Your task to perform on an android device: Open calendar and show me the second week of next month Image 0: 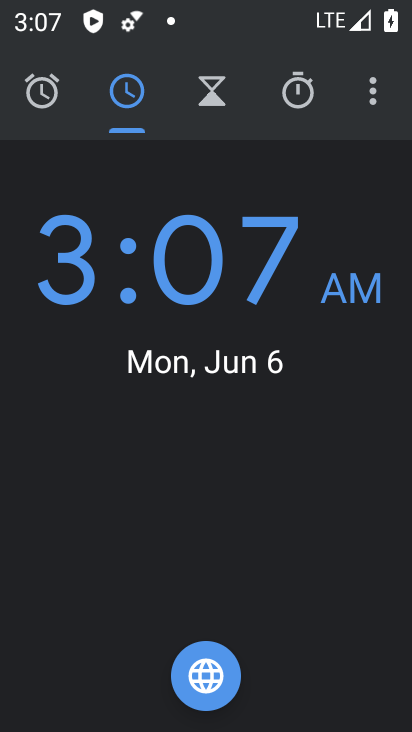
Step 0: press back button
Your task to perform on an android device: Open calendar and show me the second week of next month Image 1: 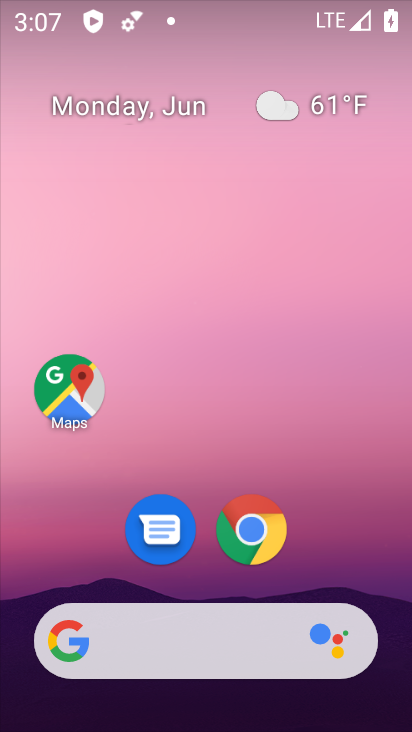
Step 1: click (230, 135)
Your task to perform on an android device: Open calendar and show me the second week of next month Image 2: 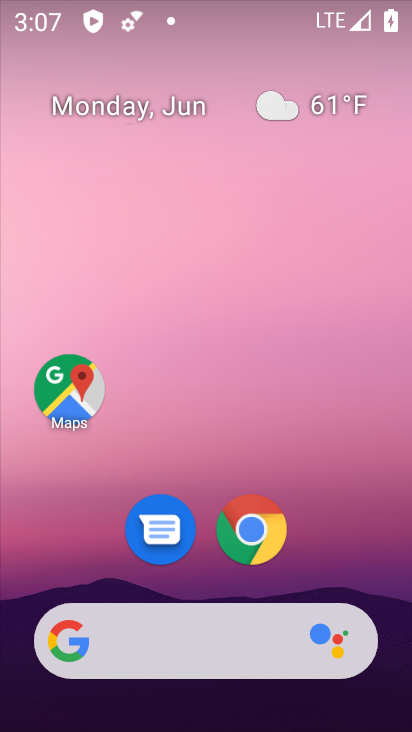
Step 2: drag from (259, 651) to (250, 123)
Your task to perform on an android device: Open calendar and show me the second week of next month Image 3: 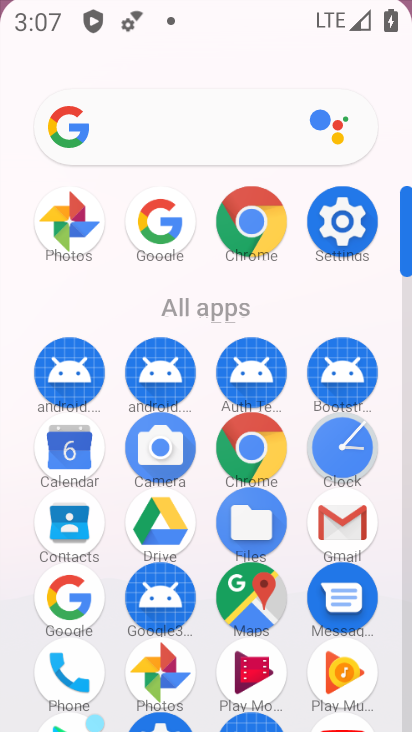
Step 3: drag from (209, 627) to (180, 114)
Your task to perform on an android device: Open calendar and show me the second week of next month Image 4: 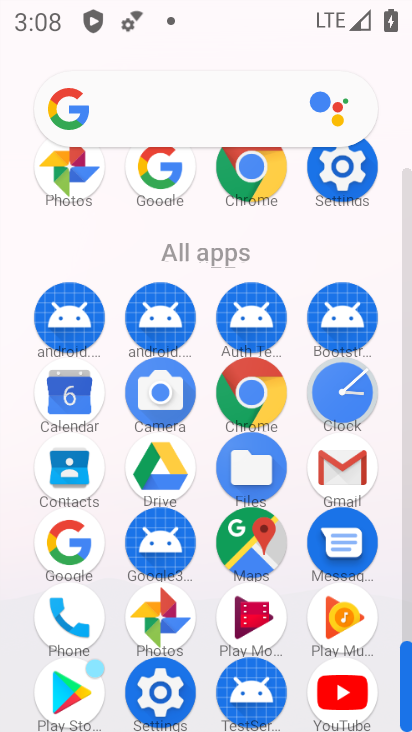
Step 4: click (58, 389)
Your task to perform on an android device: Open calendar and show me the second week of next month Image 5: 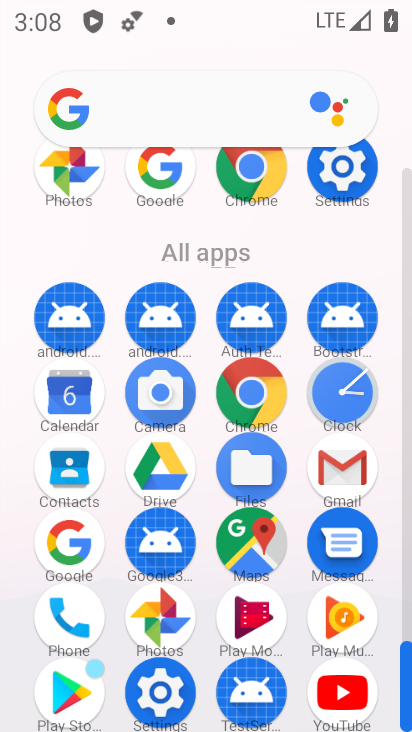
Step 5: click (56, 384)
Your task to perform on an android device: Open calendar and show me the second week of next month Image 6: 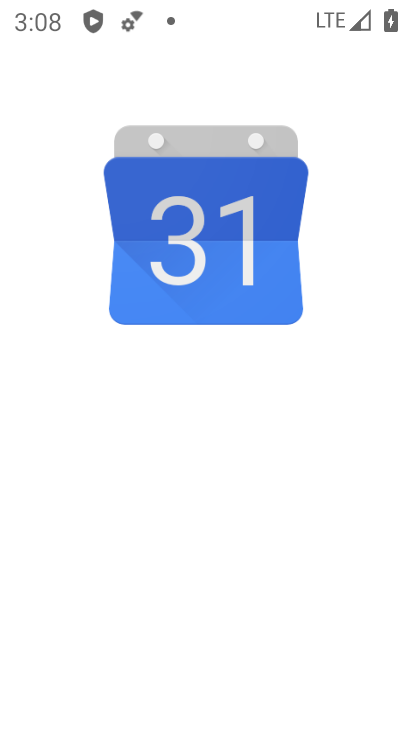
Step 6: click (52, 392)
Your task to perform on an android device: Open calendar and show me the second week of next month Image 7: 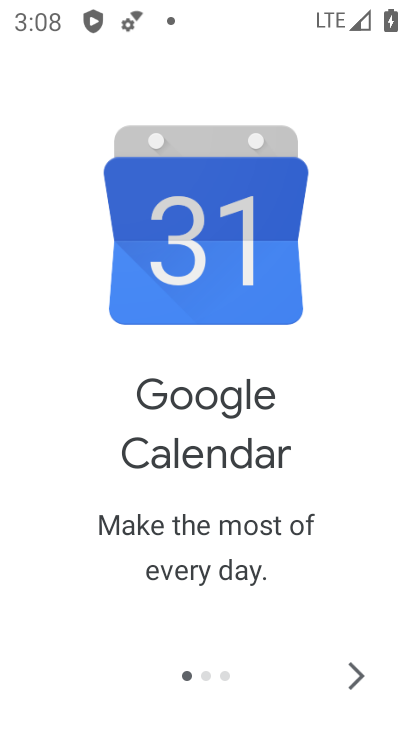
Step 7: click (364, 680)
Your task to perform on an android device: Open calendar and show me the second week of next month Image 8: 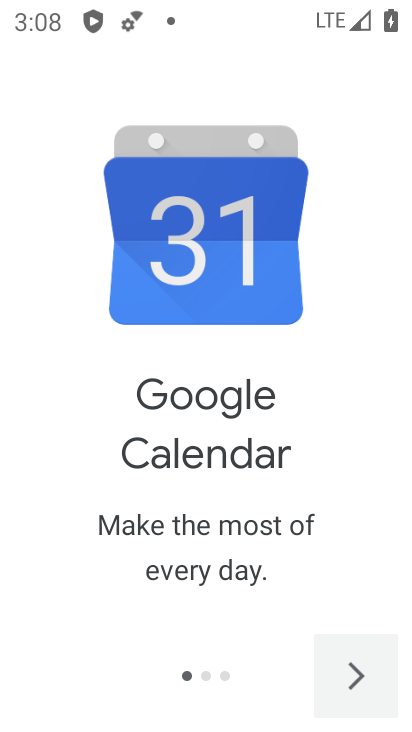
Step 8: click (364, 673)
Your task to perform on an android device: Open calendar and show me the second week of next month Image 9: 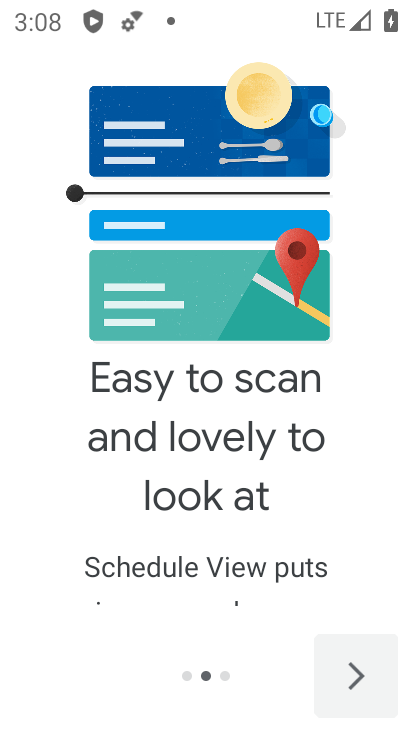
Step 9: click (364, 672)
Your task to perform on an android device: Open calendar and show me the second week of next month Image 10: 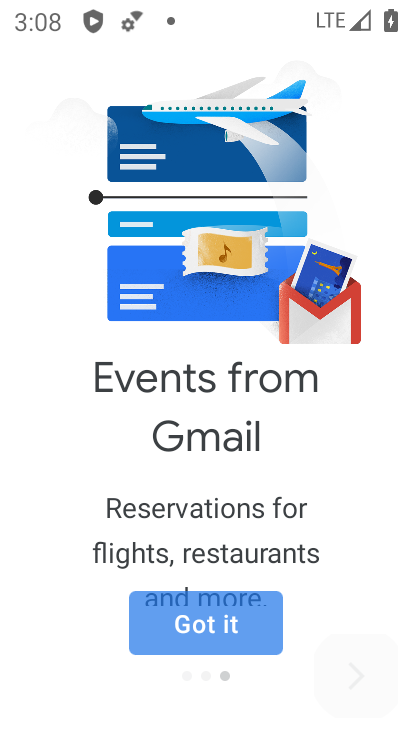
Step 10: click (366, 671)
Your task to perform on an android device: Open calendar and show me the second week of next month Image 11: 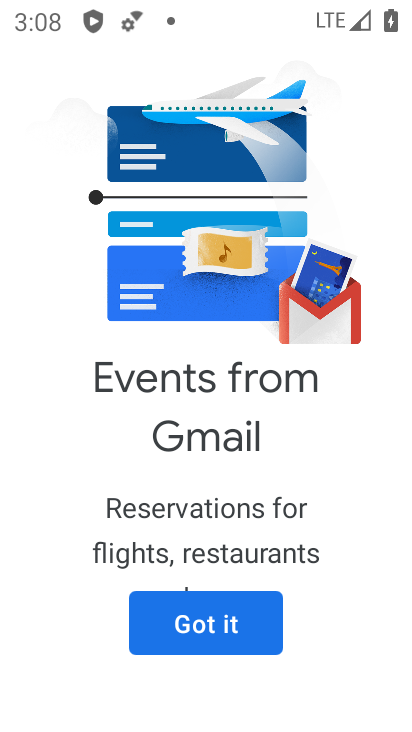
Step 11: click (219, 635)
Your task to perform on an android device: Open calendar and show me the second week of next month Image 12: 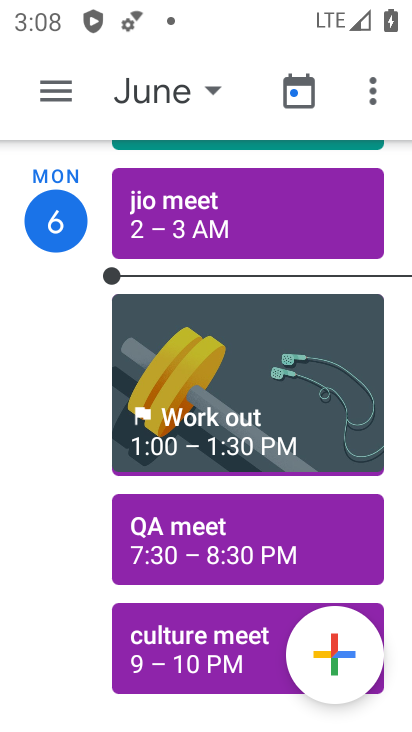
Step 12: click (215, 97)
Your task to perform on an android device: Open calendar and show me the second week of next month Image 13: 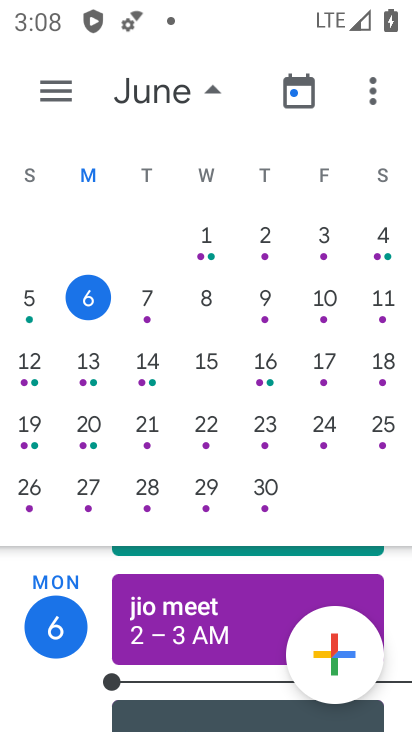
Step 13: drag from (270, 319) to (2, 377)
Your task to perform on an android device: Open calendar and show me the second week of next month Image 14: 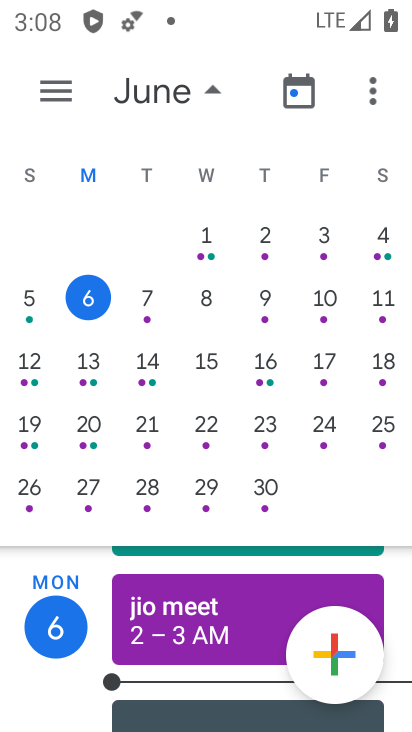
Step 14: drag from (296, 322) to (64, 421)
Your task to perform on an android device: Open calendar and show me the second week of next month Image 15: 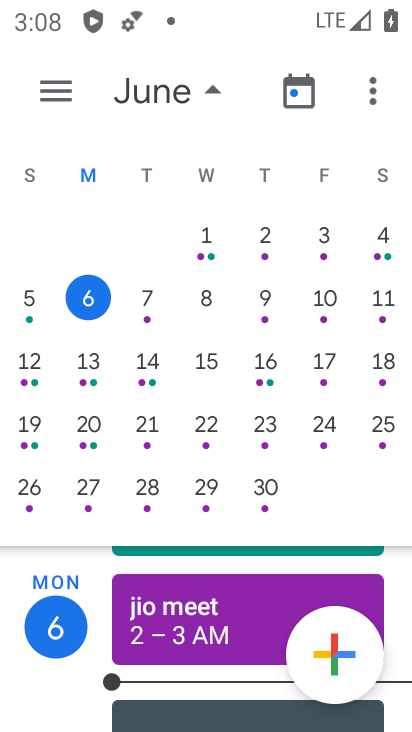
Step 15: drag from (338, 348) to (27, 397)
Your task to perform on an android device: Open calendar and show me the second week of next month Image 16: 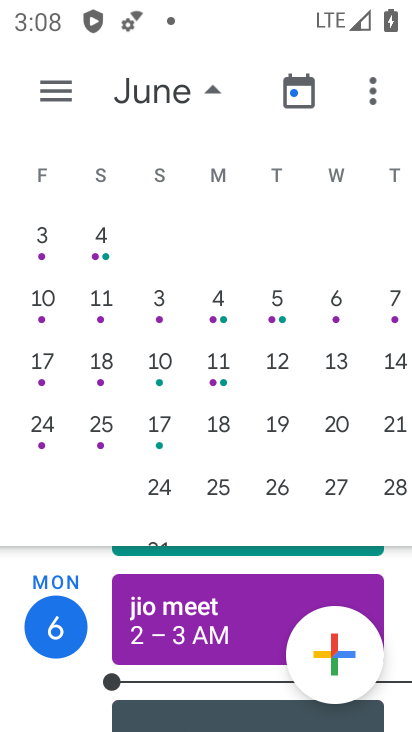
Step 16: drag from (219, 337) to (18, 356)
Your task to perform on an android device: Open calendar and show me the second week of next month Image 17: 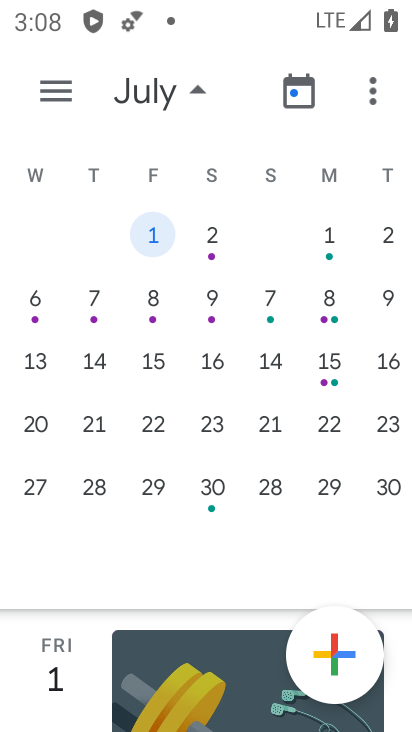
Step 17: drag from (324, 318) to (15, 264)
Your task to perform on an android device: Open calendar and show me the second week of next month Image 18: 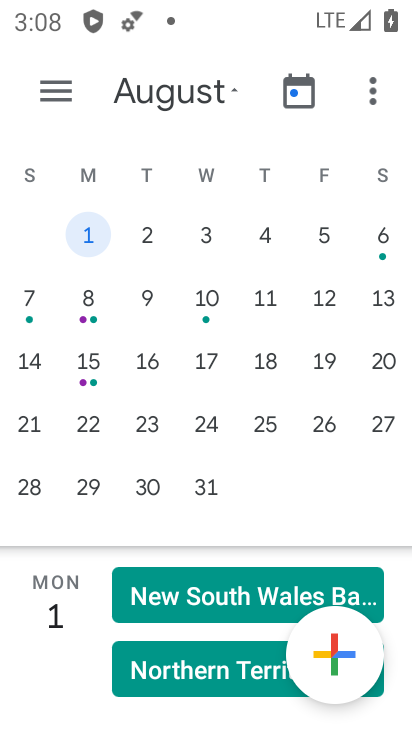
Step 18: drag from (107, 319) to (336, 375)
Your task to perform on an android device: Open calendar and show me the second week of next month Image 19: 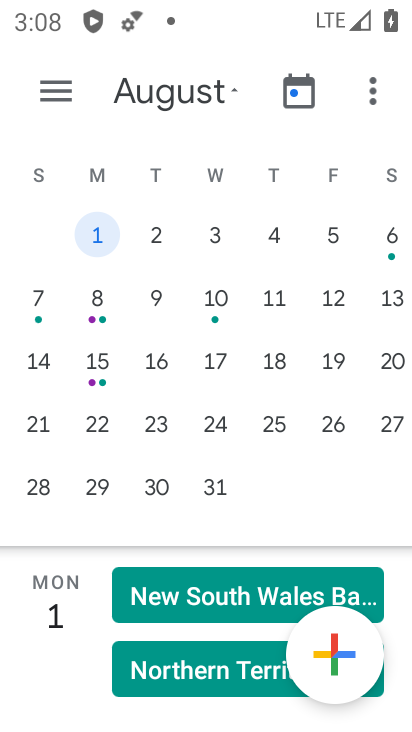
Step 19: drag from (121, 352) to (360, 326)
Your task to perform on an android device: Open calendar and show me the second week of next month Image 20: 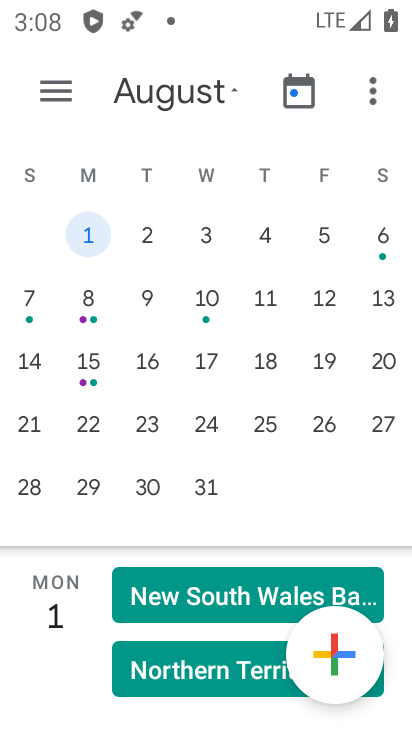
Step 20: drag from (137, 304) to (371, 345)
Your task to perform on an android device: Open calendar and show me the second week of next month Image 21: 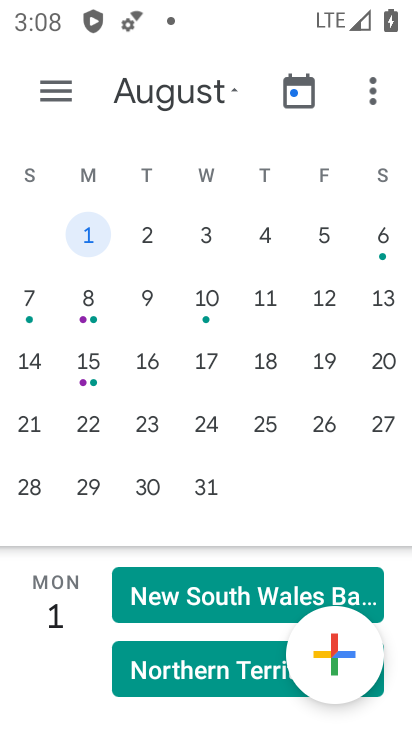
Step 21: drag from (84, 318) to (359, 375)
Your task to perform on an android device: Open calendar and show me the second week of next month Image 22: 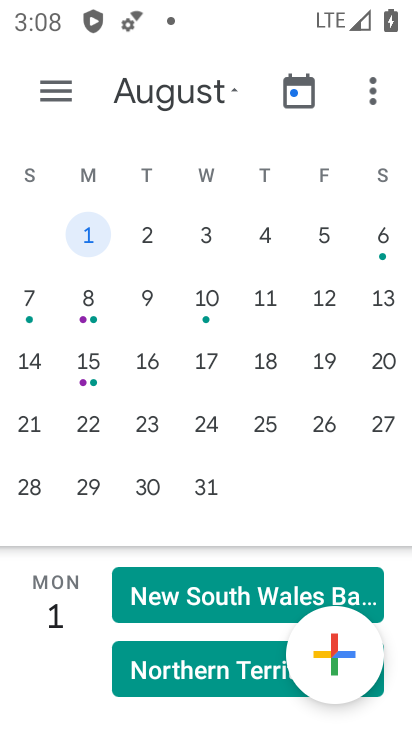
Step 22: drag from (36, 344) to (379, 341)
Your task to perform on an android device: Open calendar and show me the second week of next month Image 23: 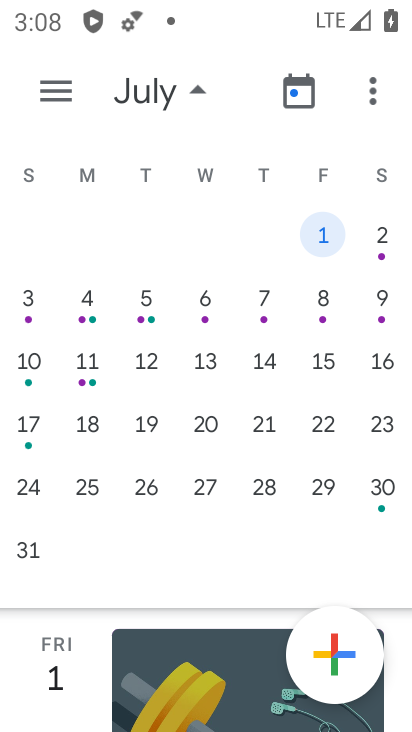
Step 23: drag from (129, 335) to (315, 362)
Your task to perform on an android device: Open calendar and show me the second week of next month Image 24: 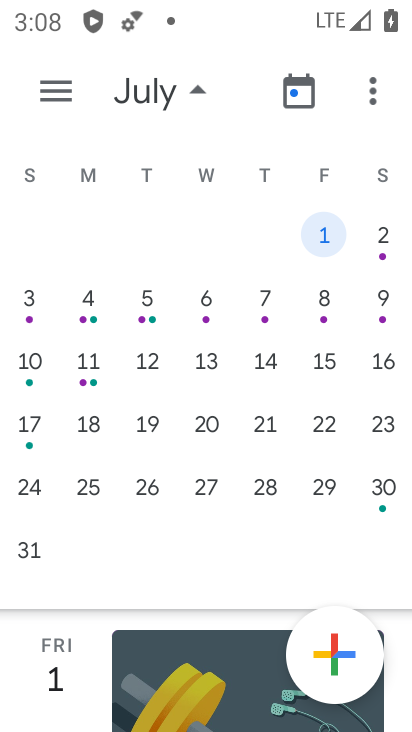
Step 24: click (317, 297)
Your task to perform on an android device: Open calendar and show me the second week of next month Image 25: 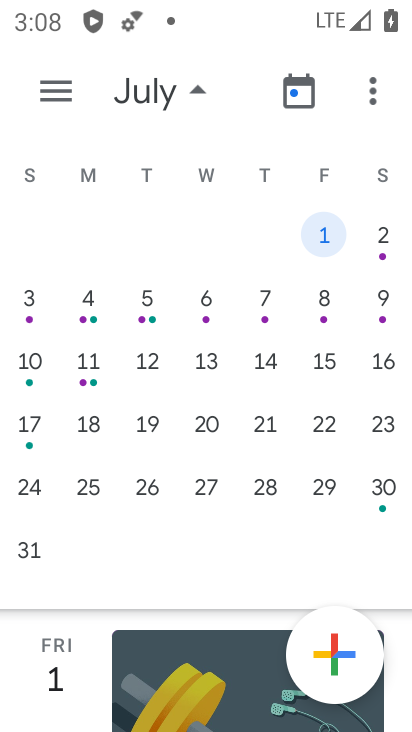
Step 25: click (318, 295)
Your task to perform on an android device: Open calendar and show me the second week of next month Image 26: 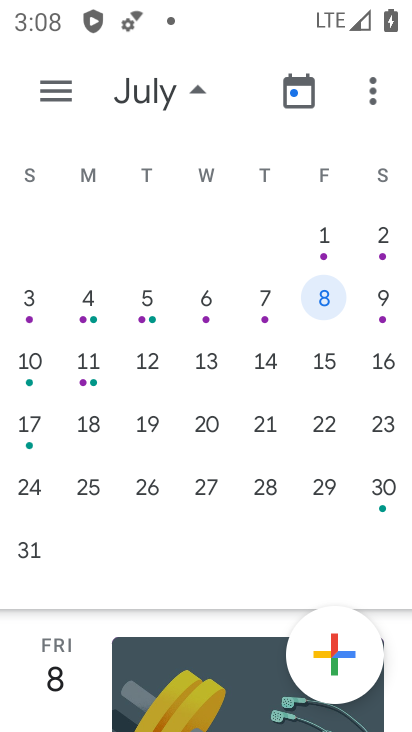
Step 26: click (320, 296)
Your task to perform on an android device: Open calendar and show me the second week of next month Image 27: 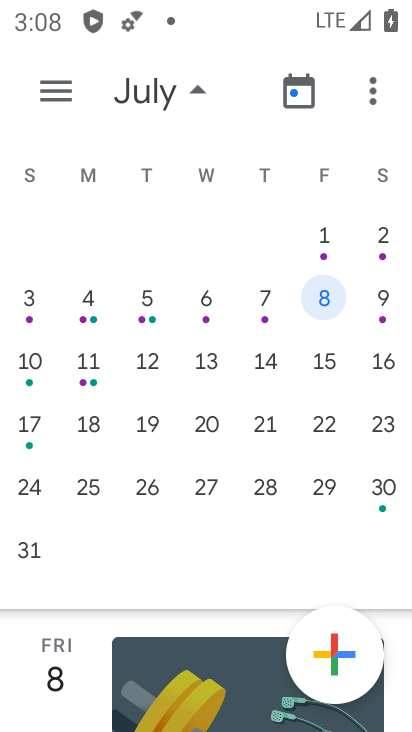
Step 27: click (320, 296)
Your task to perform on an android device: Open calendar and show me the second week of next month Image 28: 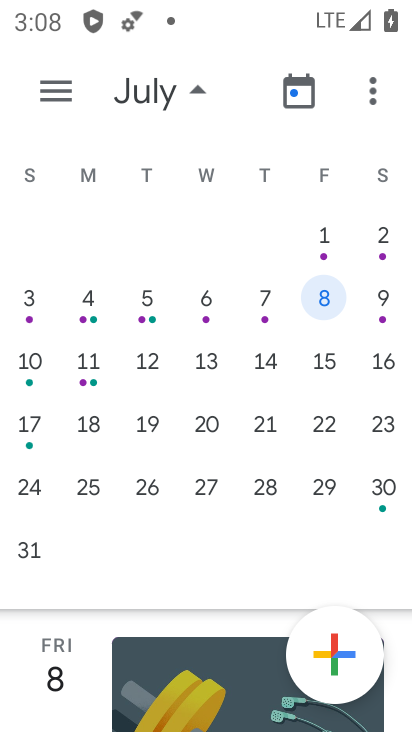
Step 28: click (323, 295)
Your task to perform on an android device: Open calendar and show me the second week of next month Image 29: 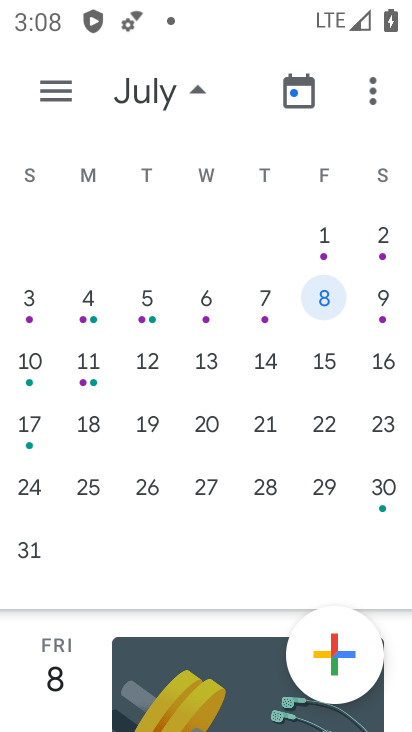
Step 29: click (323, 295)
Your task to perform on an android device: Open calendar and show me the second week of next month Image 30: 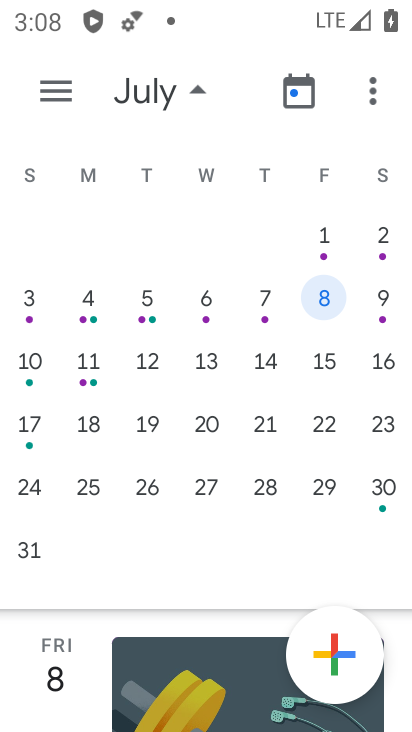
Step 30: task complete